Your task to perform on an android device: Open Chrome and go to the settings page Image 0: 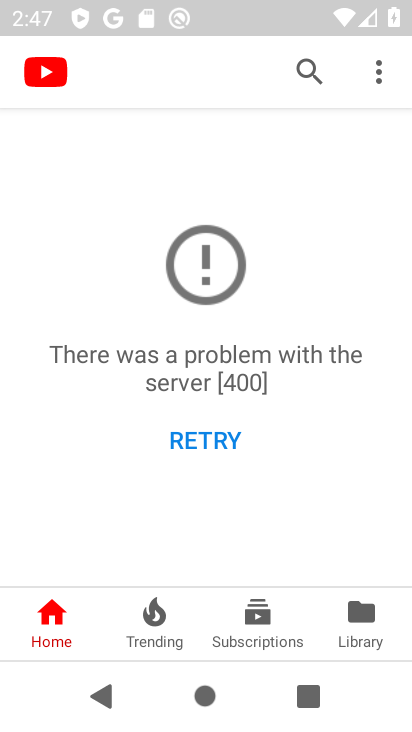
Step 0: press back button
Your task to perform on an android device: Open Chrome and go to the settings page Image 1: 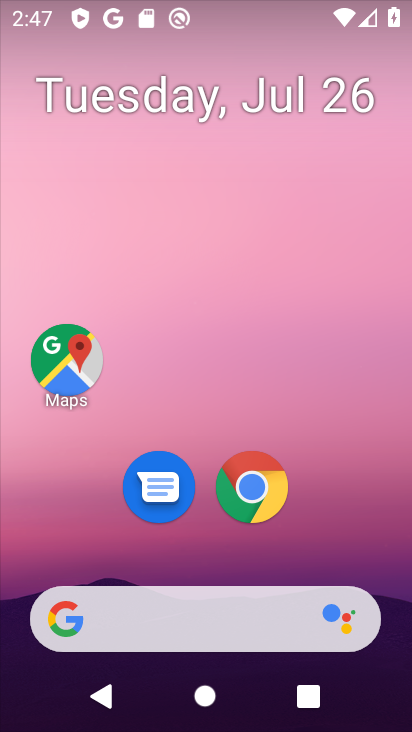
Step 1: click (249, 489)
Your task to perform on an android device: Open Chrome and go to the settings page Image 2: 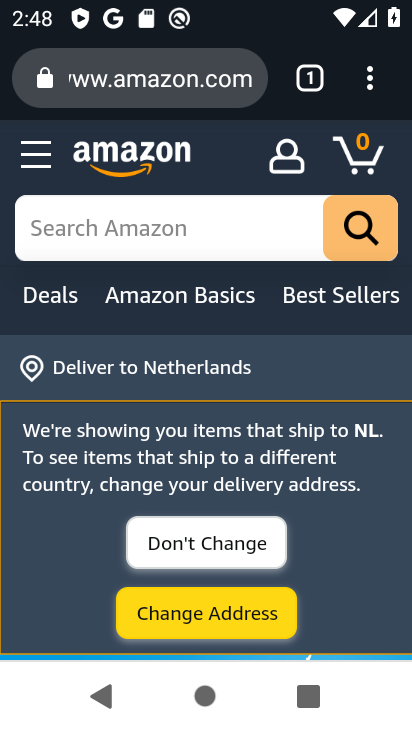
Step 2: task complete